Your task to perform on an android device: Open Google Chrome Image 0: 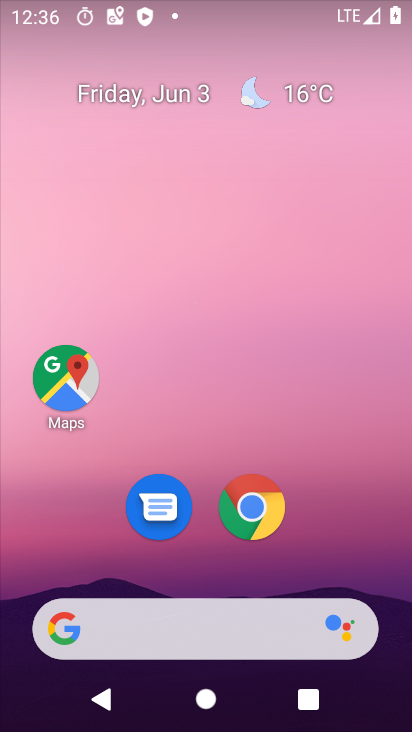
Step 0: drag from (391, 622) to (288, 8)
Your task to perform on an android device: Open Google Chrome Image 1: 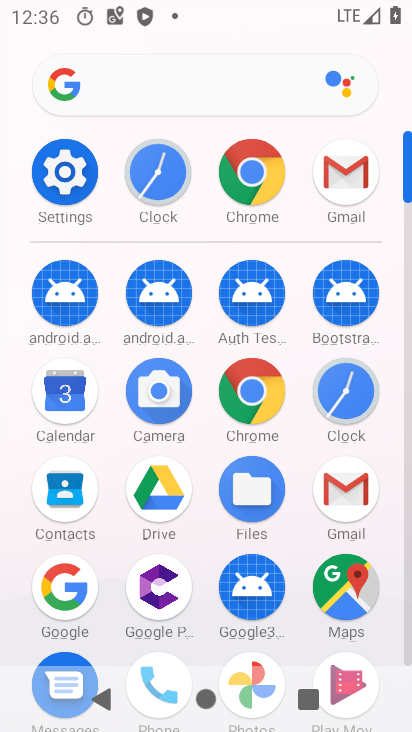
Step 1: click (262, 175)
Your task to perform on an android device: Open Google Chrome Image 2: 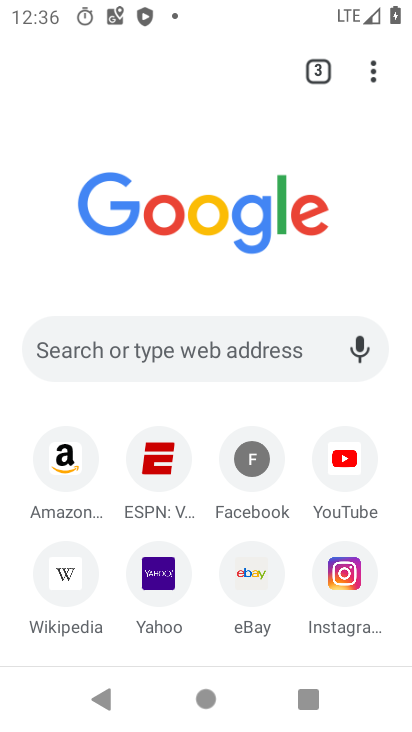
Step 2: task complete